Your task to perform on an android device: change notification settings in the gmail app Image 0: 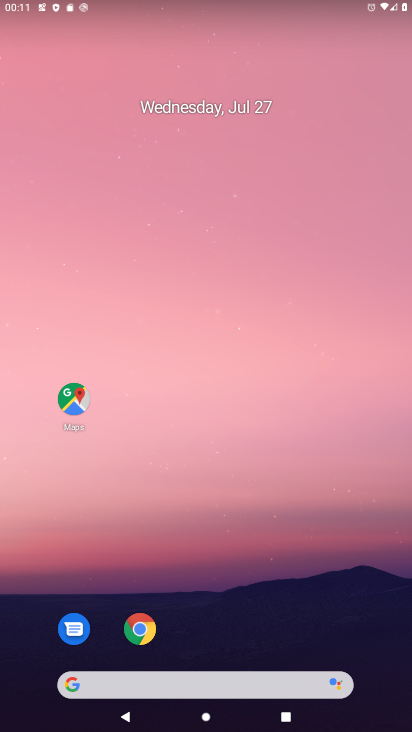
Step 0: drag from (216, 714) to (220, 238)
Your task to perform on an android device: change notification settings in the gmail app Image 1: 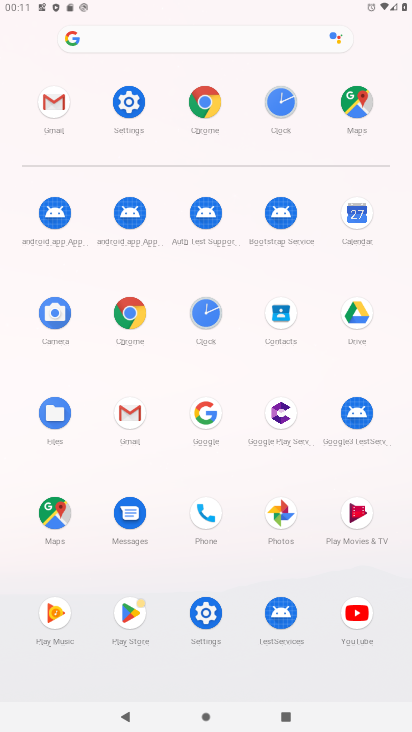
Step 1: click (126, 411)
Your task to perform on an android device: change notification settings in the gmail app Image 2: 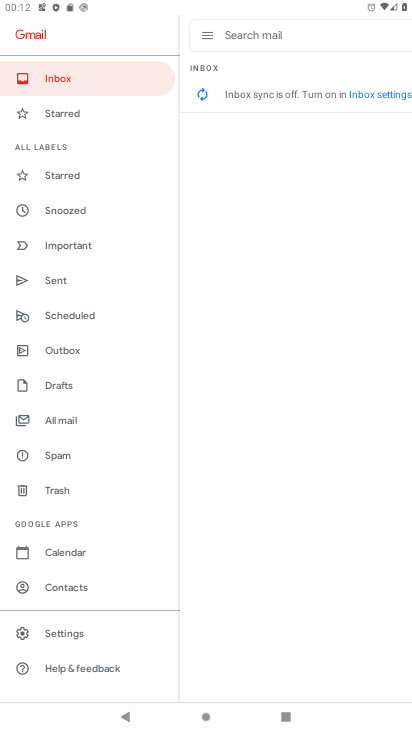
Step 2: click (68, 633)
Your task to perform on an android device: change notification settings in the gmail app Image 3: 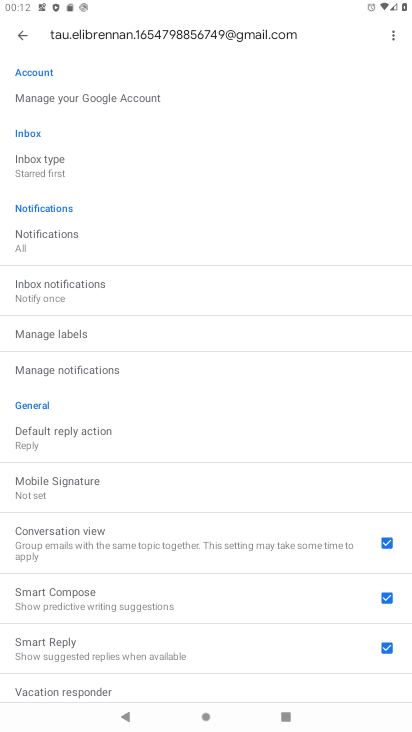
Step 3: click (34, 242)
Your task to perform on an android device: change notification settings in the gmail app Image 4: 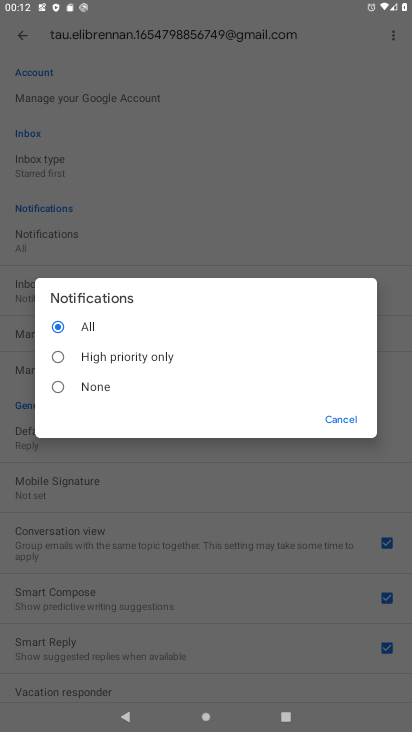
Step 4: click (53, 384)
Your task to perform on an android device: change notification settings in the gmail app Image 5: 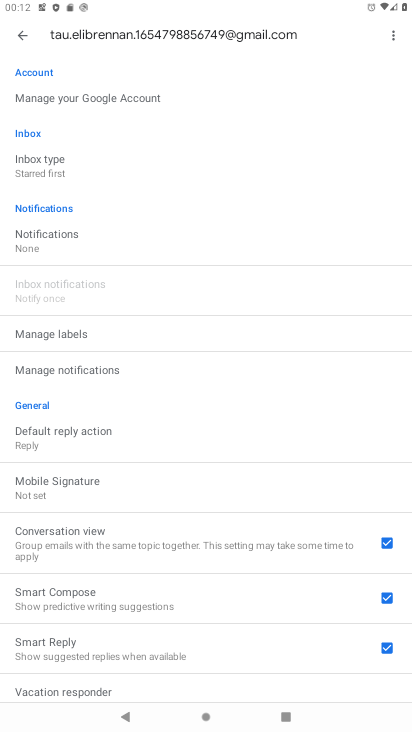
Step 5: task complete